Your task to perform on an android device: check storage Image 0: 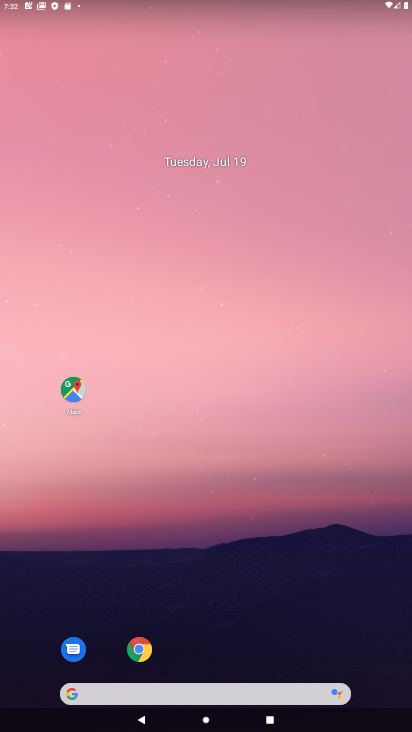
Step 0: drag from (200, 701) to (286, 270)
Your task to perform on an android device: check storage Image 1: 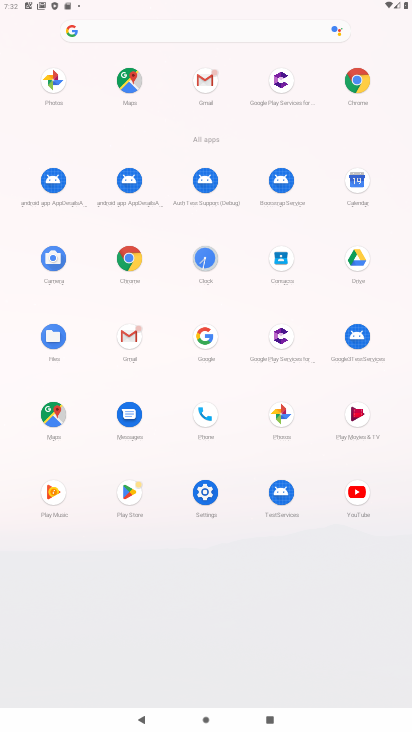
Step 1: click (206, 493)
Your task to perform on an android device: check storage Image 2: 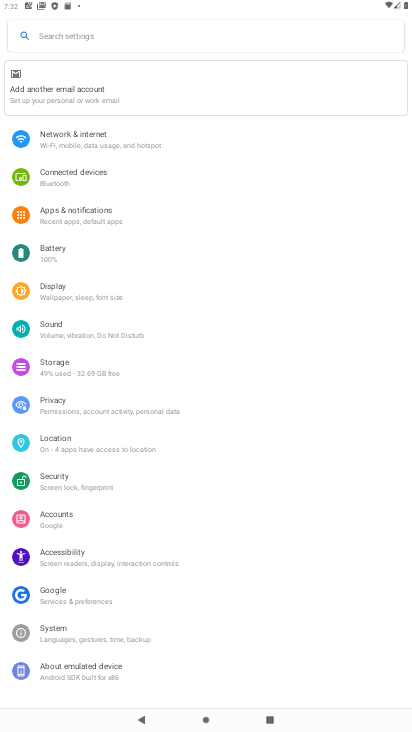
Step 2: click (91, 371)
Your task to perform on an android device: check storage Image 3: 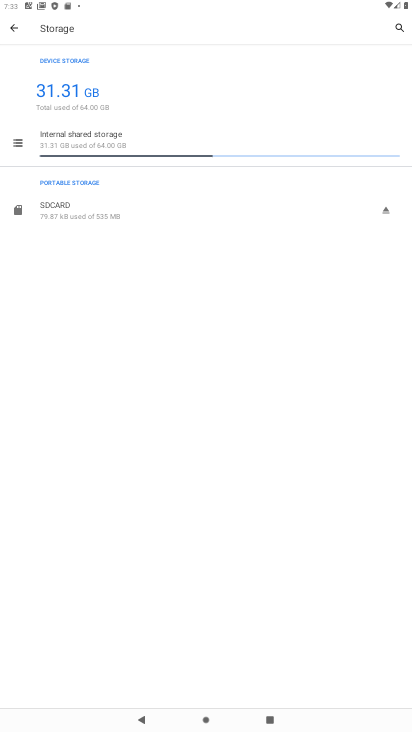
Step 3: task complete